Your task to perform on an android device: allow cookies in the chrome app Image 0: 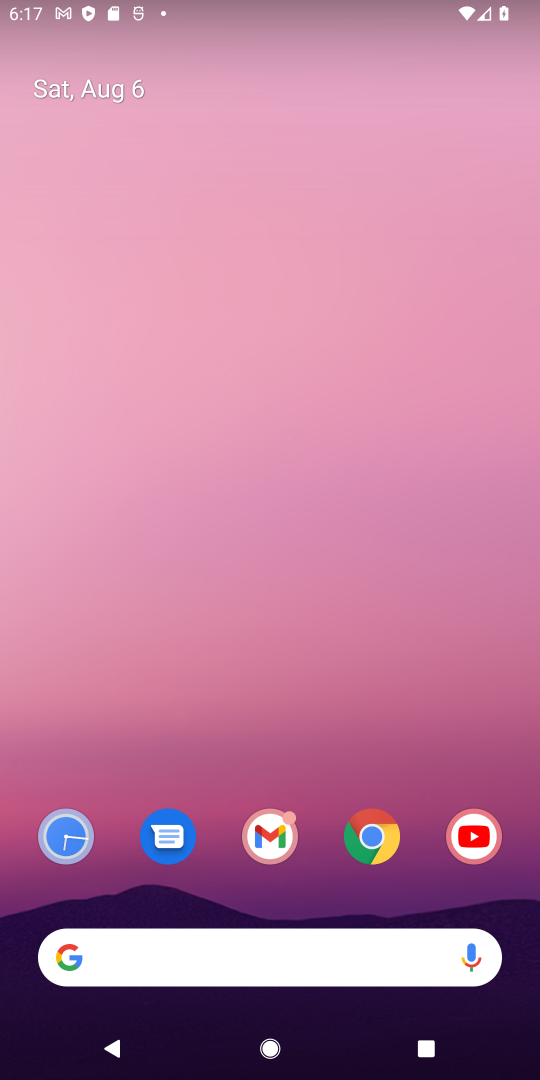
Step 0: drag from (406, 876) to (208, 47)
Your task to perform on an android device: allow cookies in the chrome app Image 1: 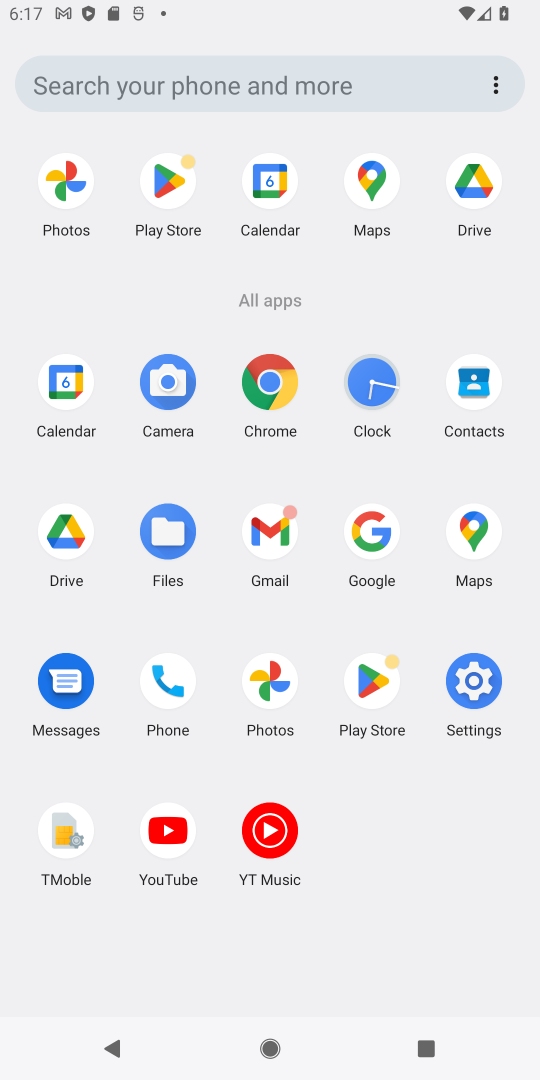
Step 1: click (267, 381)
Your task to perform on an android device: allow cookies in the chrome app Image 2: 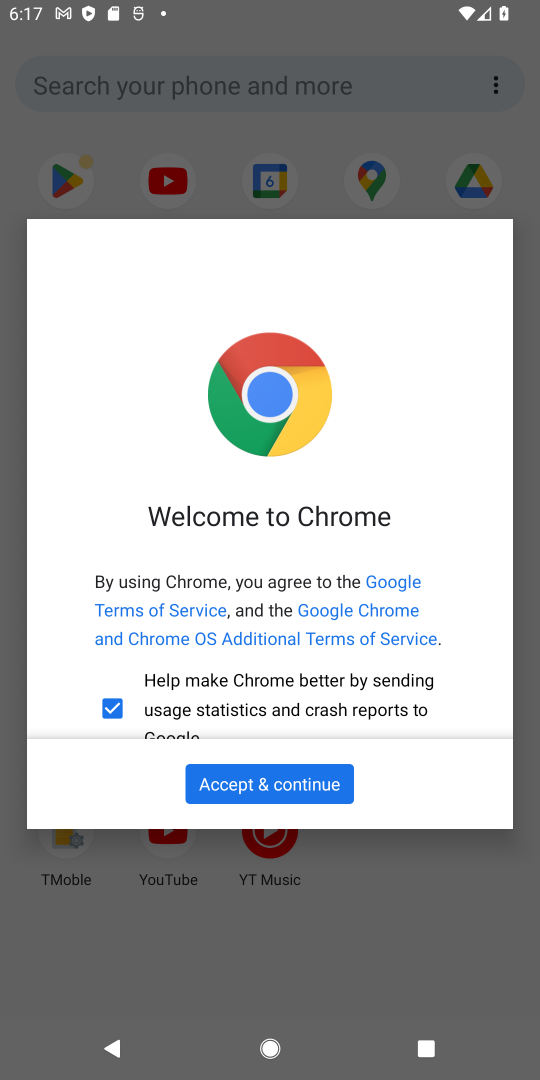
Step 2: click (296, 784)
Your task to perform on an android device: allow cookies in the chrome app Image 3: 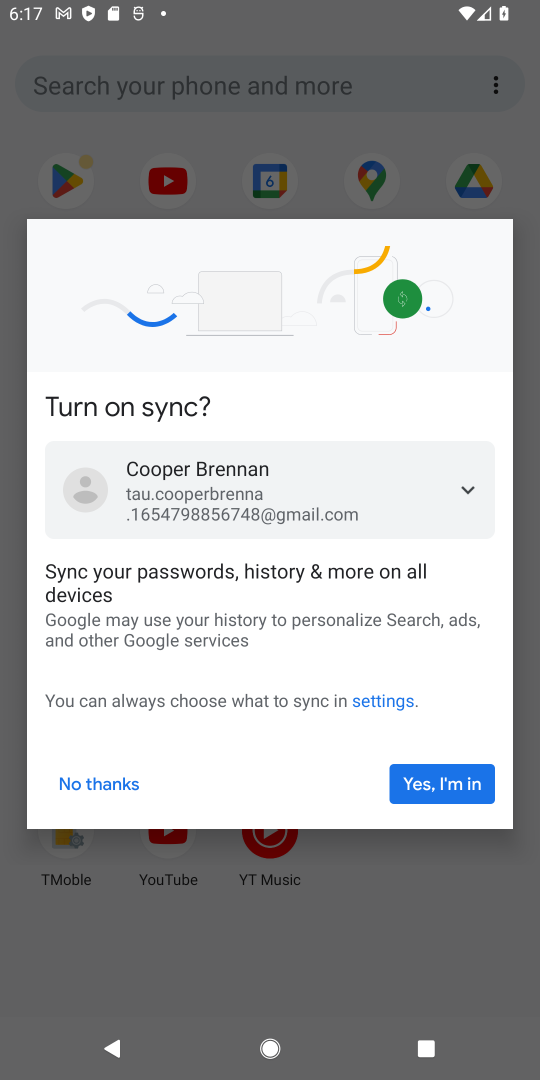
Step 3: click (441, 797)
Your task to perform on an android device: allow cookies in the chrome app Image 4: 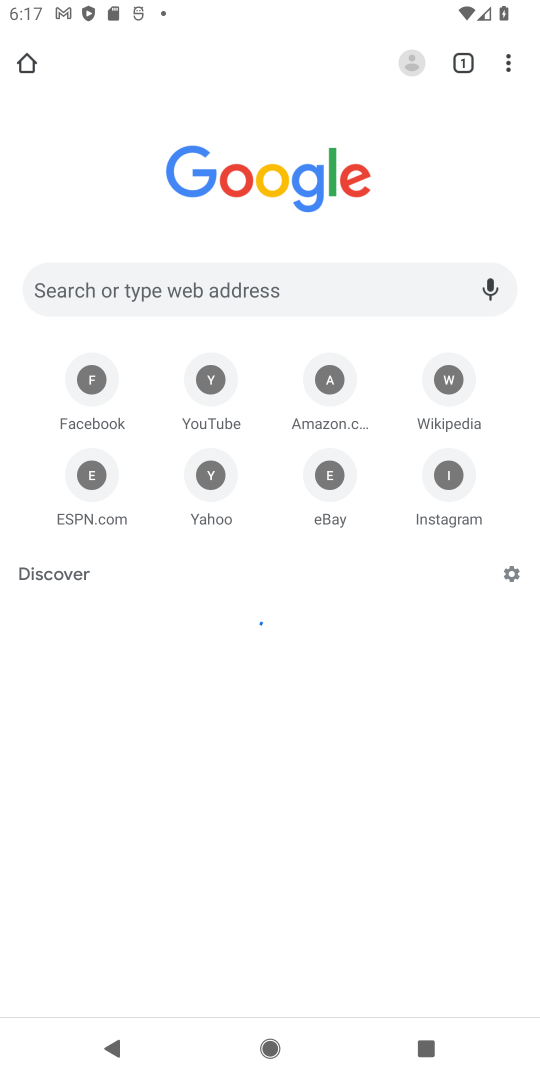
Step 4: click (503, 55)
Your task to perform on an android device: allow cookies in the chrome app Image 5: 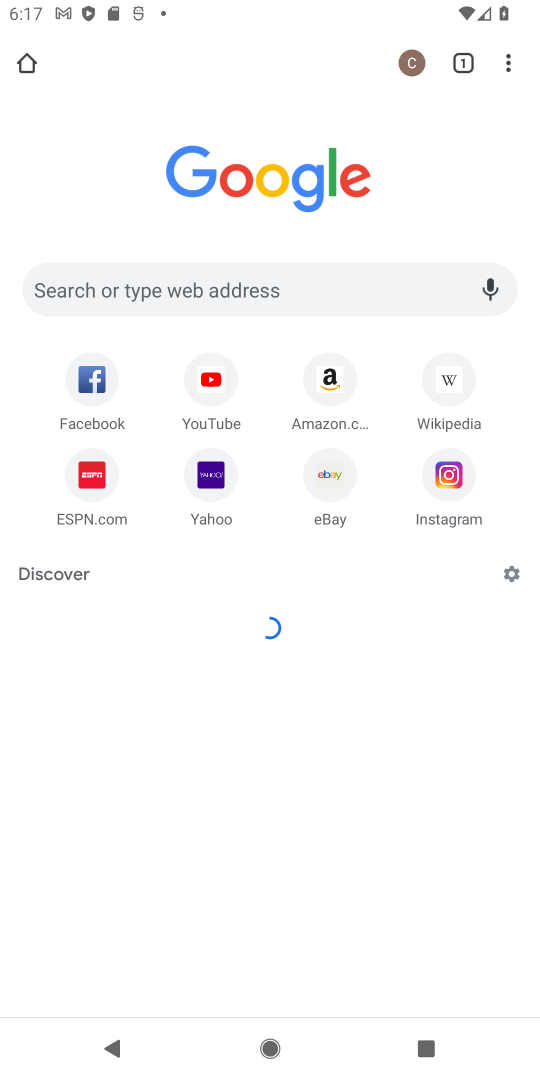
Step 5: click (510, 60)
Your task to perform on an android device: allow cookies in the chrome app Image 6: 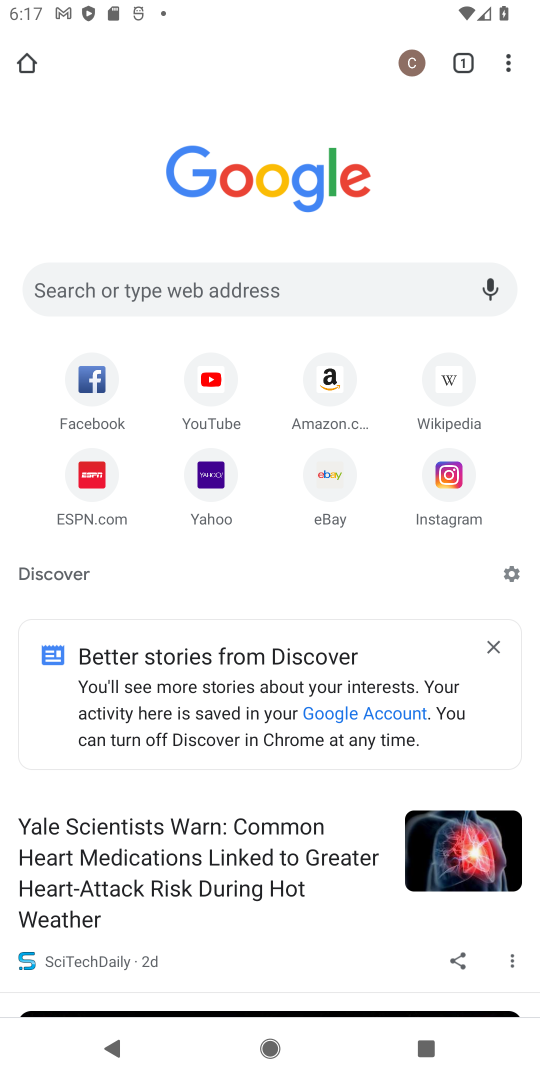
Step 6: click (502, 62)
Your task to perform on an android device: allow cookies in the chrome app Image 7: 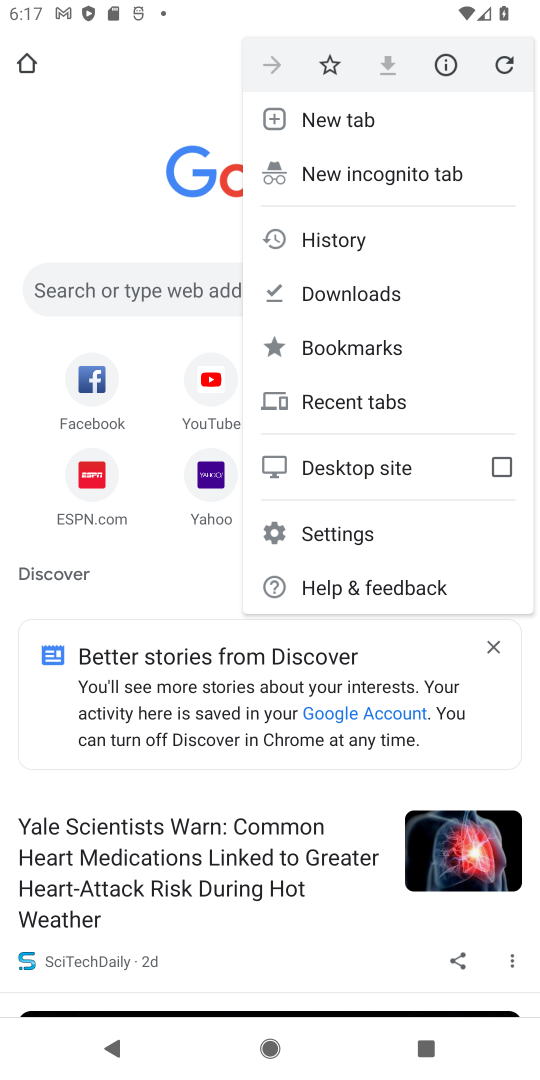
Step 7: click (341, 235)
Your task to perform on an android device: allow cookies in the chrome app Image 8: 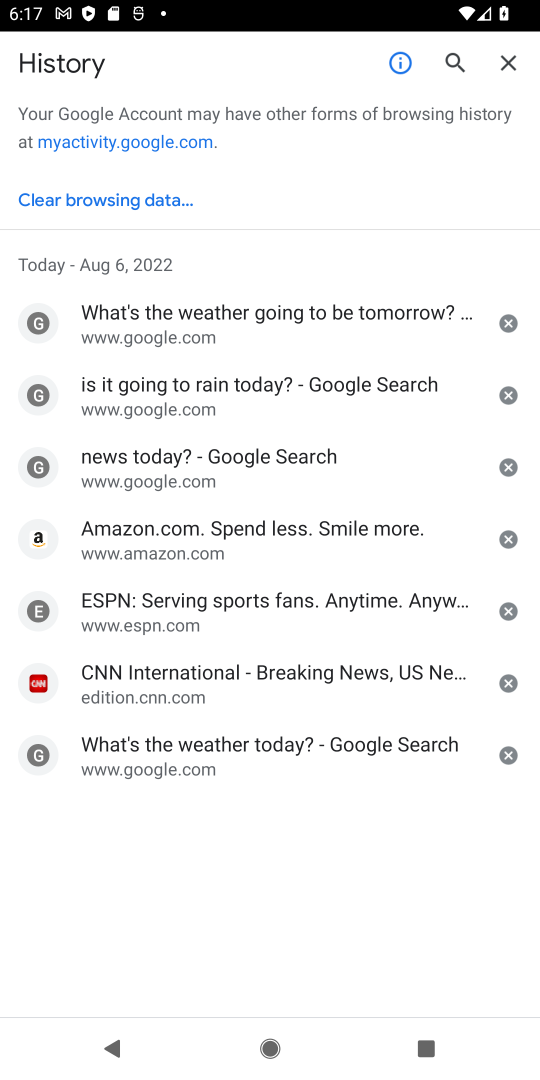
Step 8: click (63, 200)
Your task to perform on an android device: allow cookies in the chrome app Image 9: 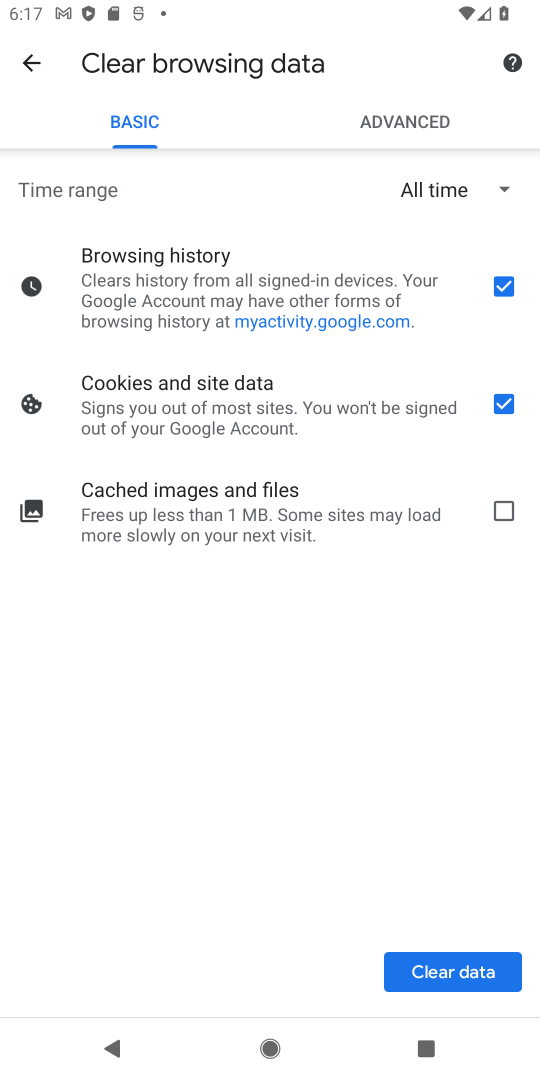
Step 9: task complete